Your task to perform on an android device: Check the weather Image 0: 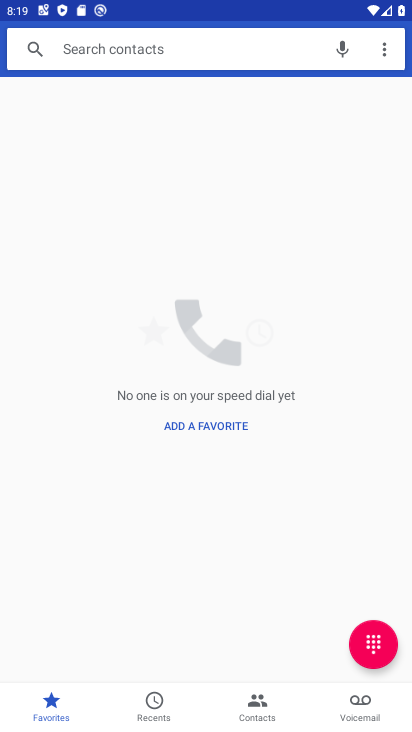
Step 0: press home button
Your task to perform on an android device: Check the weather Image 1: 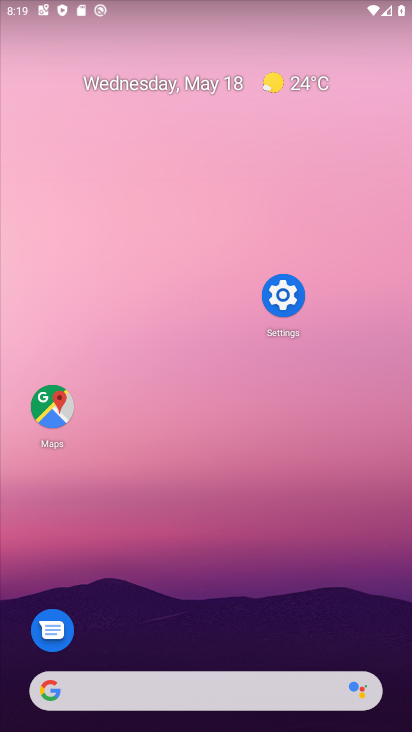
Step 1: drag from (157, 661) to (186, 242)
Your task to perform on an android device: Check the weather Image 2: 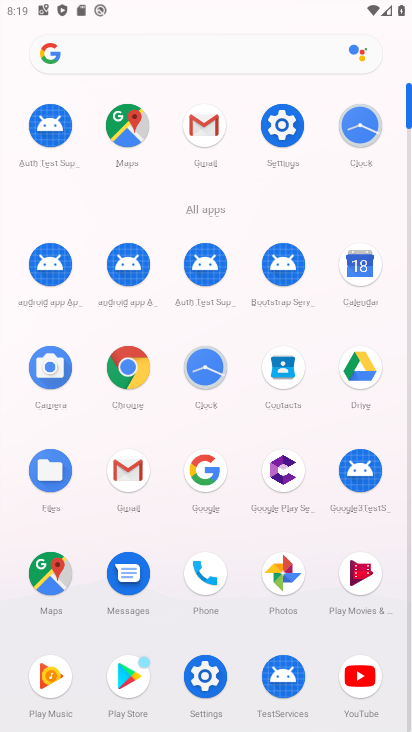
Step 2: click (194, 460)
Your task to perform on an android device: Check the weather Image 3: 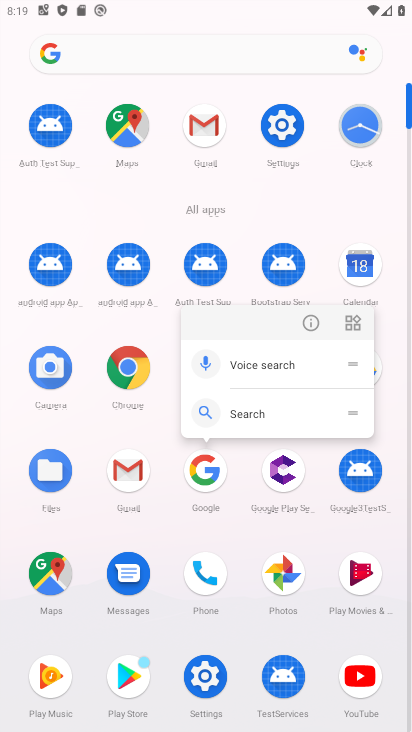
Step 3: click (208, 476)
Your task to perform on an android device: Check the weather Image 4: 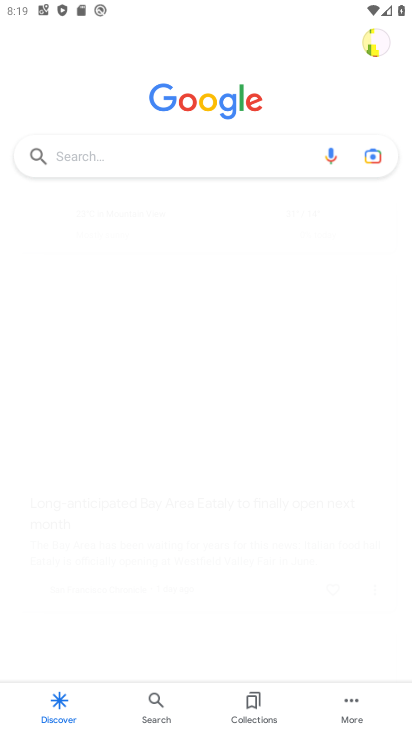
Step 4: click (137, 158)
Your task to perform on an android device: Check the weather Image 5: 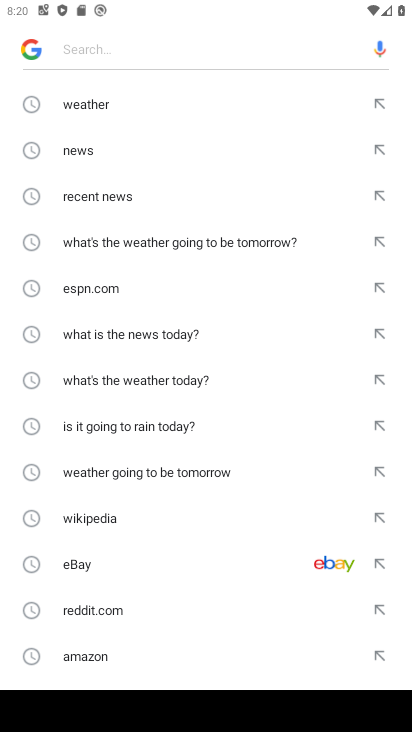
Step 5: click (81, 102)
Your task to perform on an android device: Check the weather Image 6: 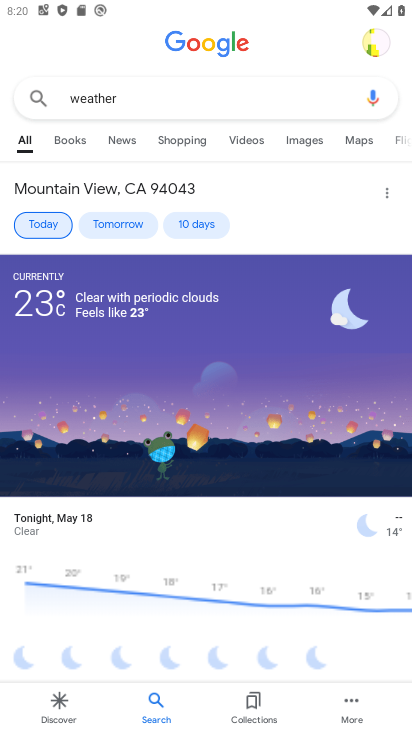
Step 6: drag from (230, 615) to (233, 364)
Your task to perform on an android device: Check the weather Image 7: 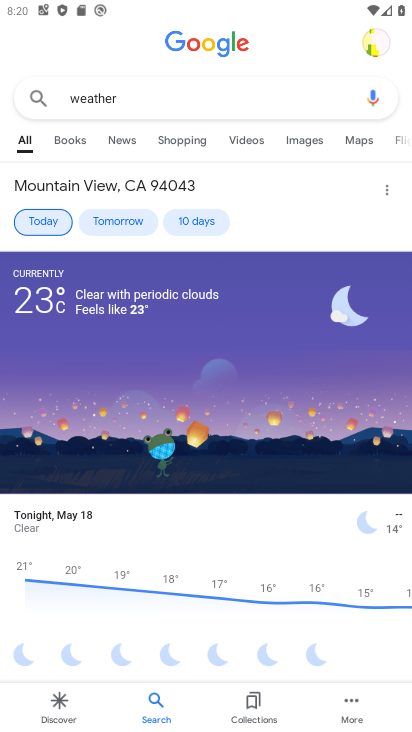
Step 7: drag from (214, 645) to (241, 402)
Your task to perform on an android device: Check the weather Image 8: 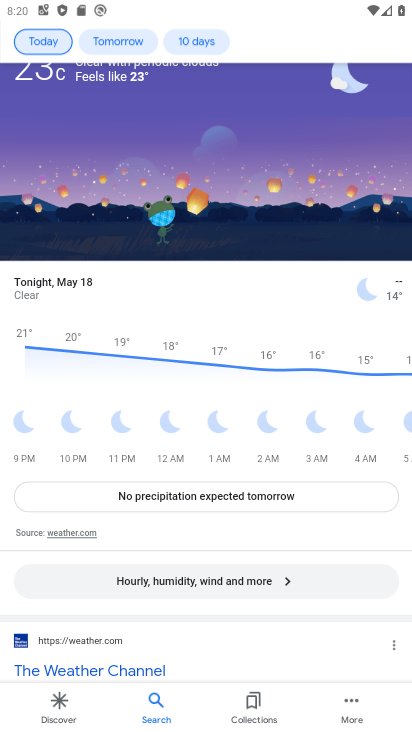
Step 8: click (201, 486)
Your task to perform on an android device: Check the weather Image 9: 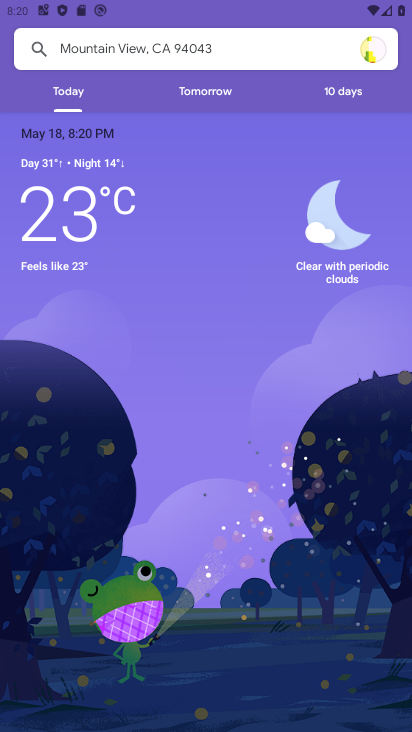
Step 9: task complete